Your task to perform on an android device: Show me recent news Image 0: 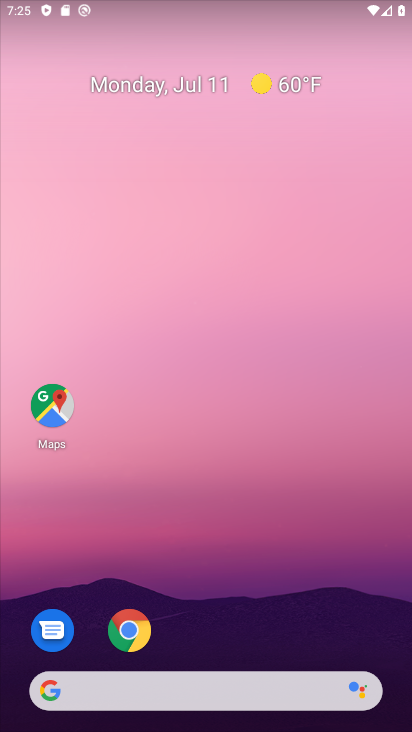
Step 0: drag from (24, 284) to (314, 285)
Your task to perform on an android device: Show me recent news Image 1: 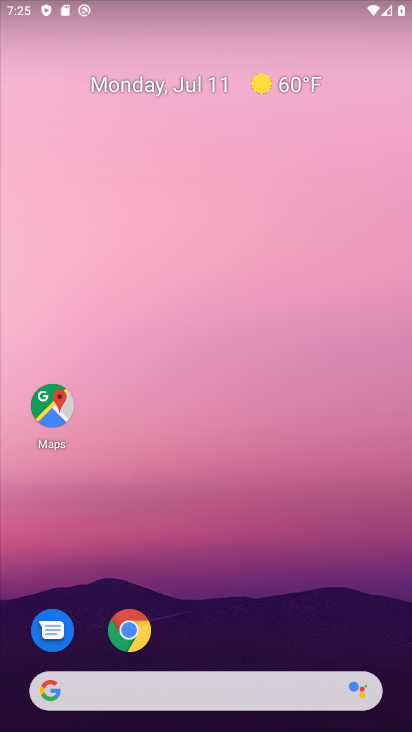
Step 1: task complete